Your task to perform on an android device: see tabs open on other devices in the chrome app Image 0: 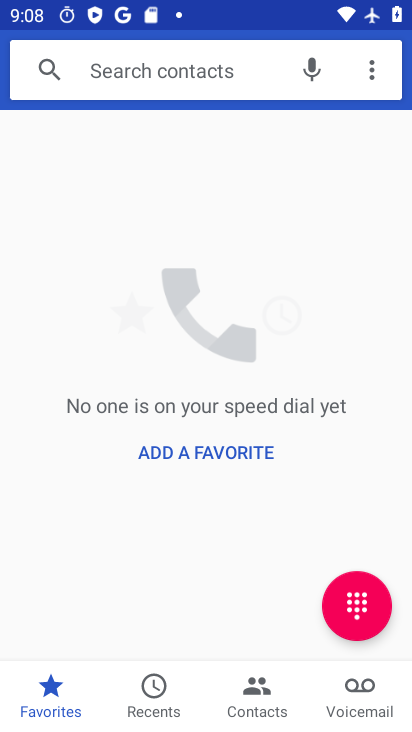
Step 0: press home button
Your task to perform on an android device: see tabs open on other devices in the chrome app Image 1: 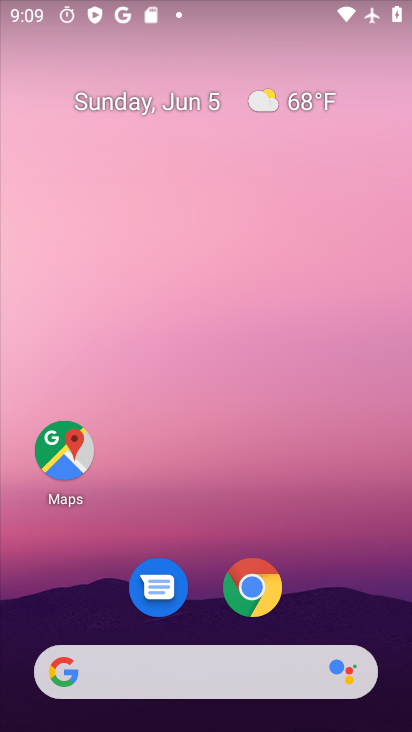
Step 1: drag from (317, 619) to (210, 369)
Your task to perform on an android device: see tabs open on other devices in the chrome app Image 2: 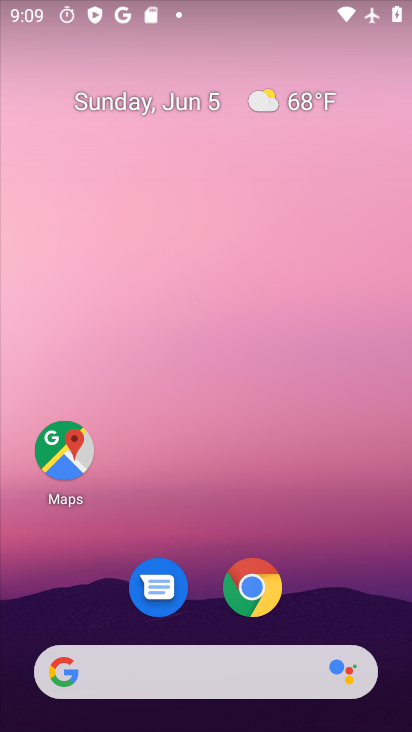
Step 2: click (249, 579)
Your task to perform on an android device: see tabs open on other devices in the chrome app Image 3: 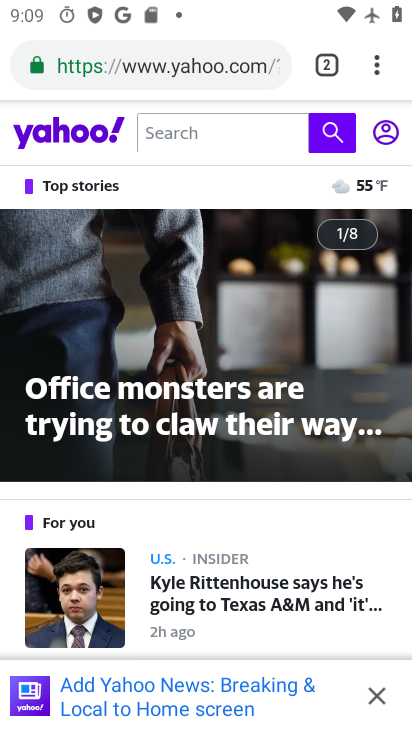
Step 3: click (377, 68)
Your task to perform on an android device: see tabs open on other devices in the chrome app Image 4: 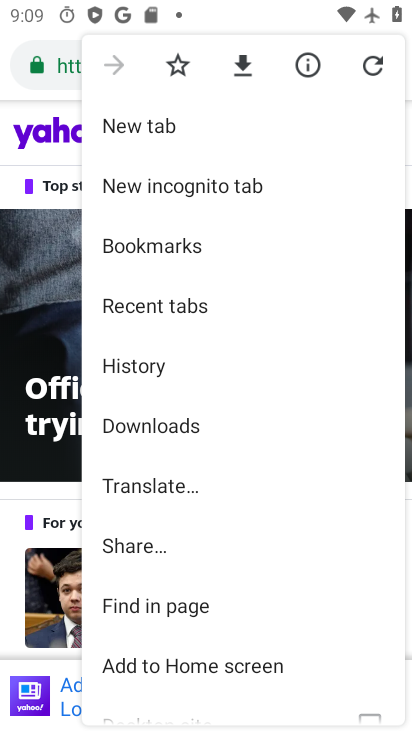
Step 4: click (198, 303)
Your task to perform on an android device: see tabs open on other devices in the chrome app Image 5: 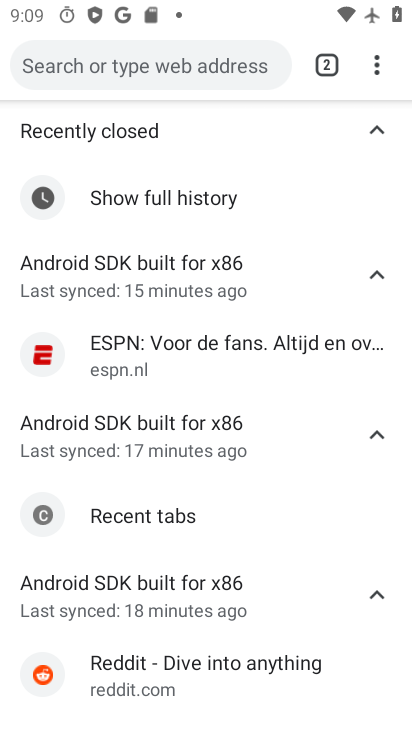
Step 5: task complete